Your task to perform on an android device: change the clock display to show seconds Image 0: 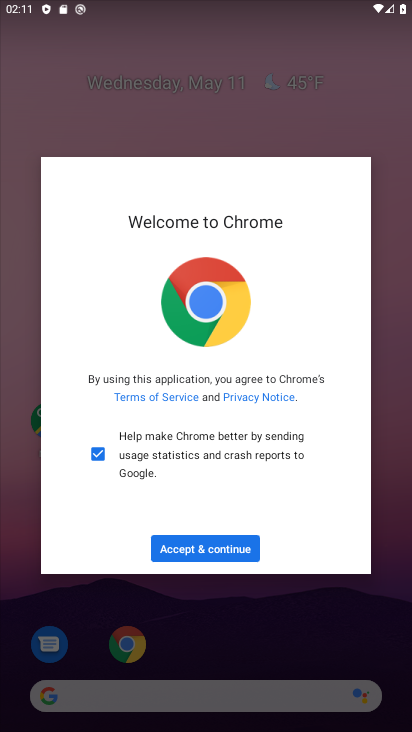
Step 0: press back button
Your task to perform on an android device: change the clock display to show seconds Image 1: 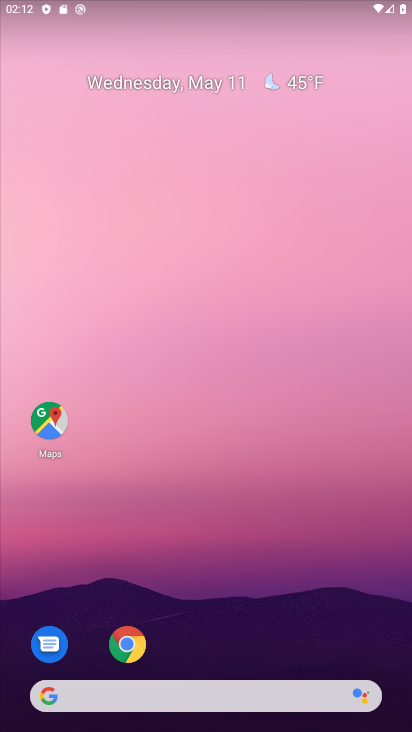
Step 1: drag from (202, 492) to (259, 10)
Your task to perform on an android device: change the clock display to show seconds Image 2: 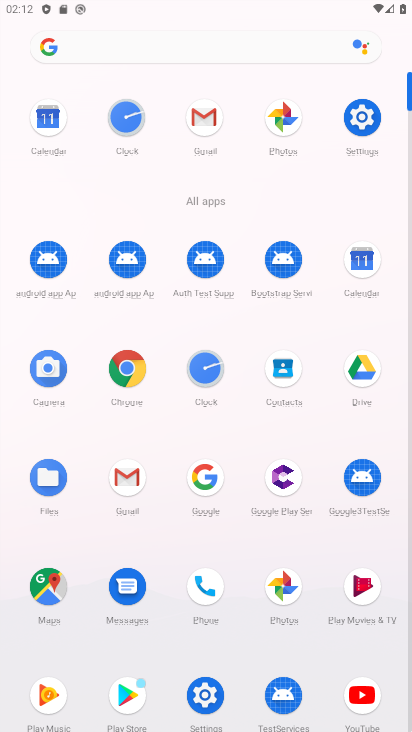
Step 2: click (202, 374)
Your task to perform on an android device: change the clock display to show seconds Image 3: 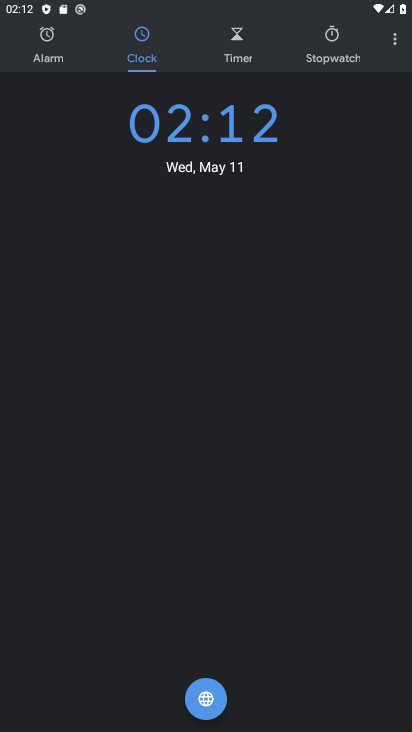
Step 3: click (401, 31)
Your task to perform on an android device: change the clock display to show seconds Image 4: 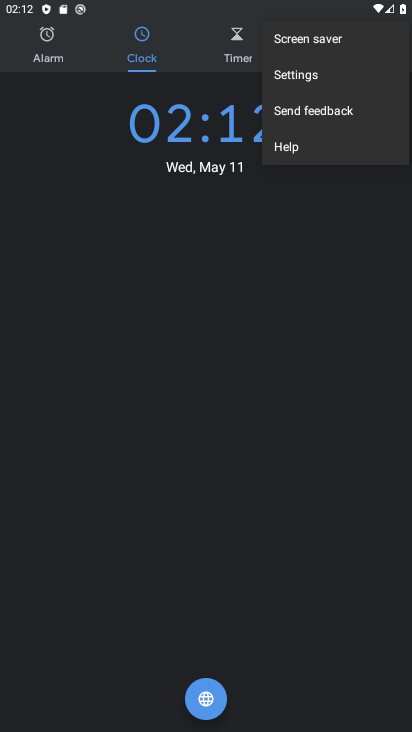
Step 4: click (307, 76)
Your task to perform on an android device: change the clock display to show seconds Image 5: 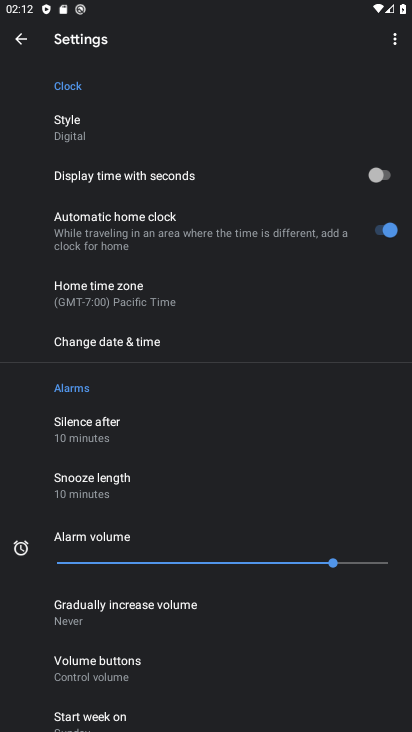
Step 5: click (104, 130)
Your task to perform on an android device: change the clock display to show seconds Image 6: 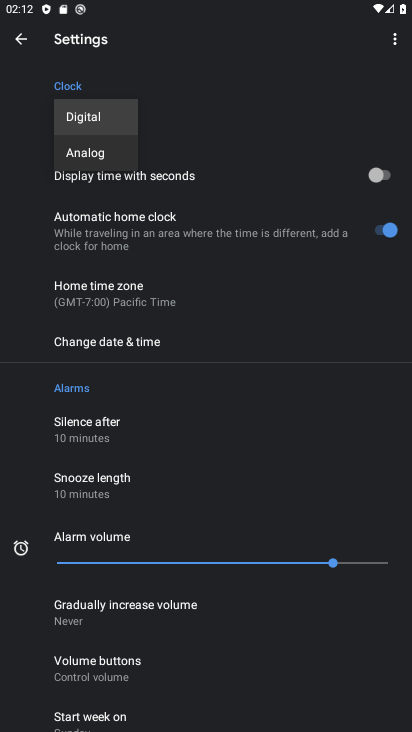
Step 6: click (379, 175)
Your task to perform on an android device: change the clock display to show seconds Image 7: 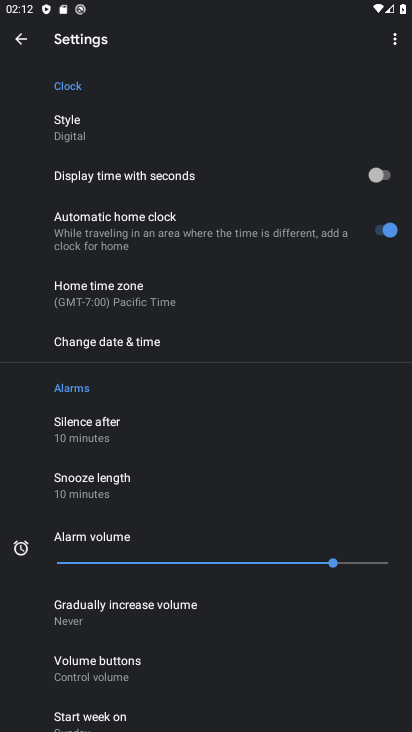
Step 7: task complete